Your task to perform on an android device: open app "Reddit" (install if not already installed) Image 0: 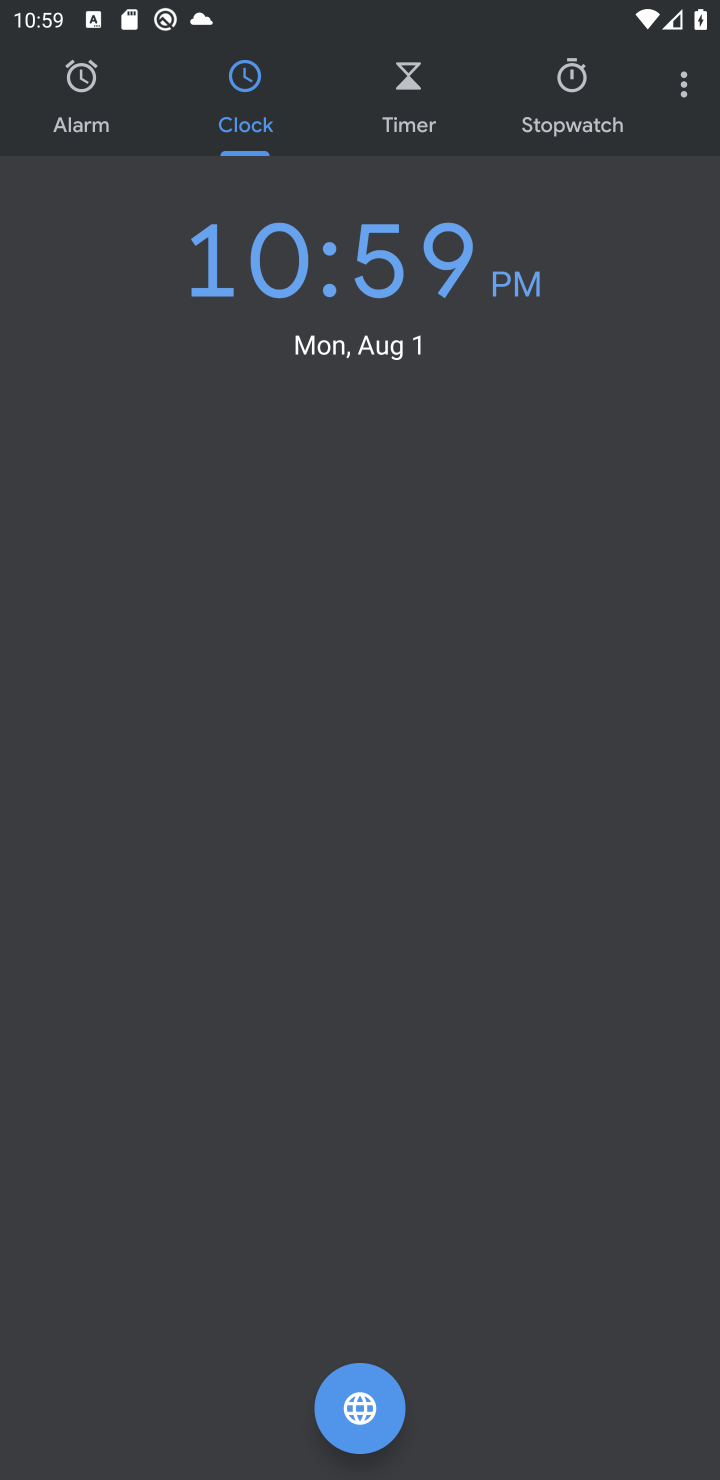
Step 0: press home button
Your task to perform on an android device: open app "Reddit" (install if not already installed) Image 1: 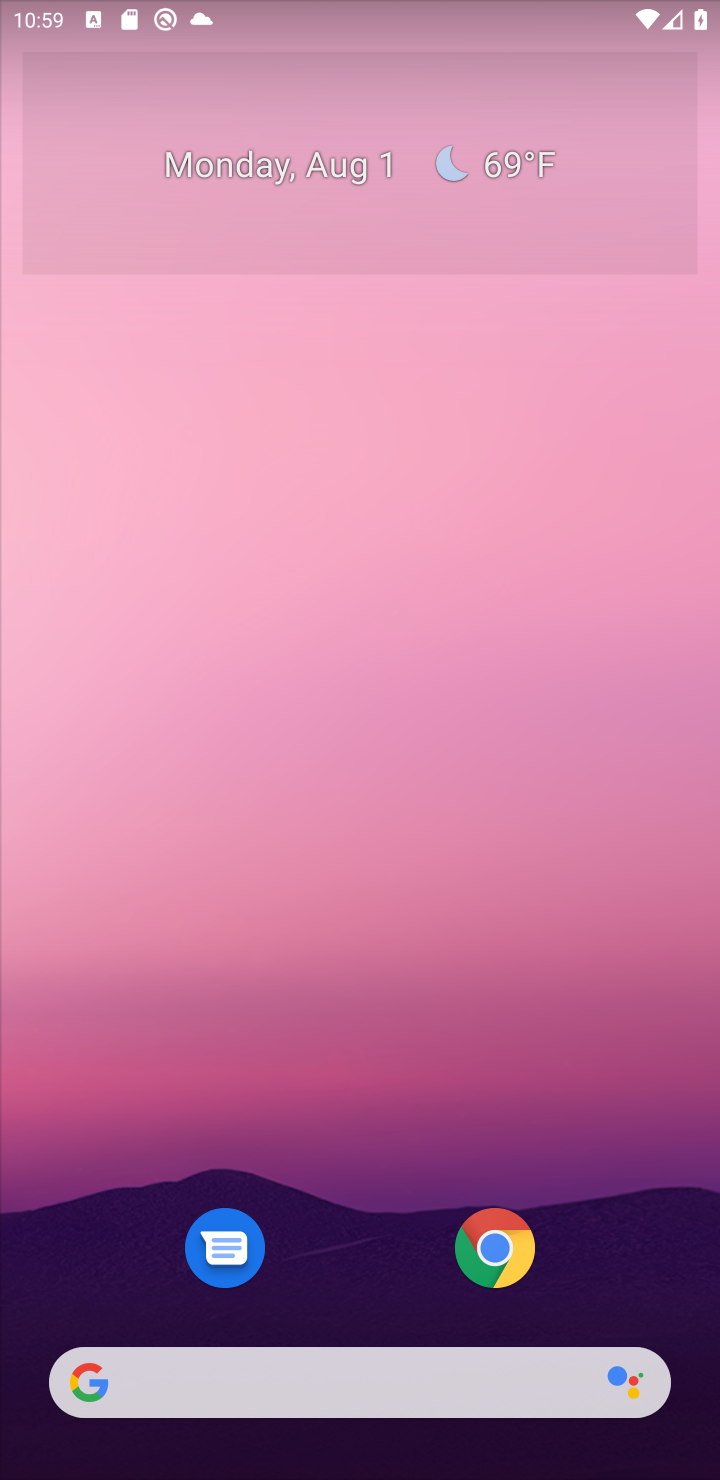
Step 1: drag from (346, 1274) to (372, 201)
Your task to perform on an android device: open app "Reddit" (install if not already installed) Image 2: 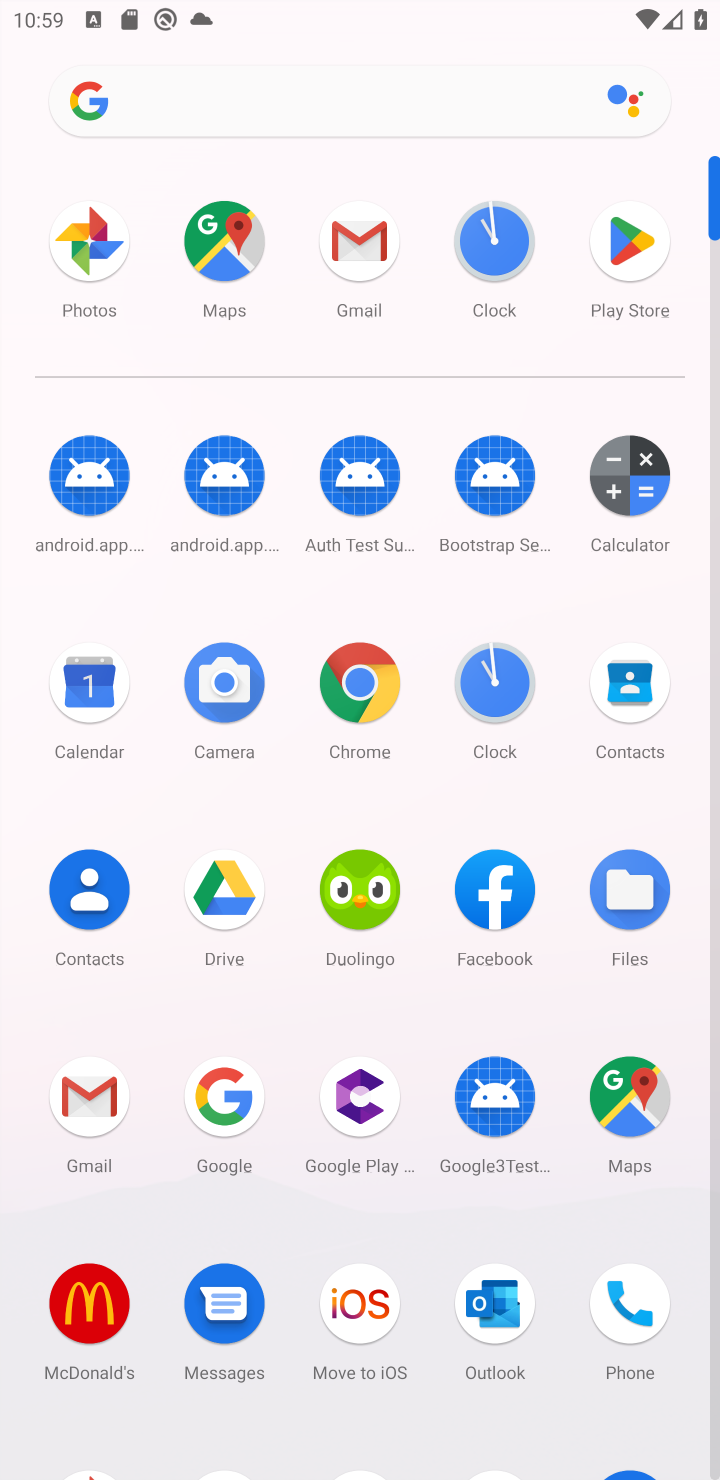
Step 2: drag from (290, 1198) to (316, 387)
Your task to perform on an android device: open app "Reddit" (install if not already installed) Image 3: 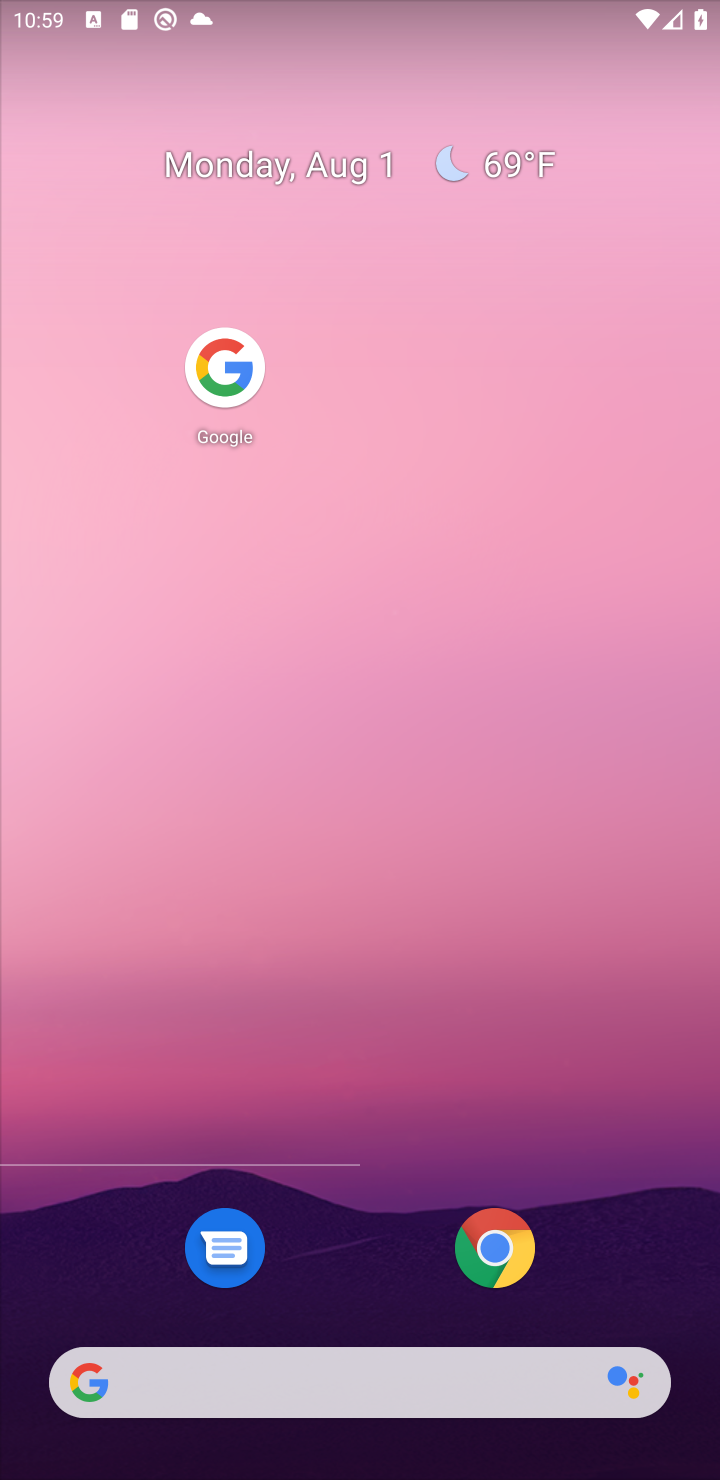
Step 3: drag from (441, 1099) to (538, 73)
Your task to perform on an android device: open app "Reddit" (install if not already installed) Image 4: 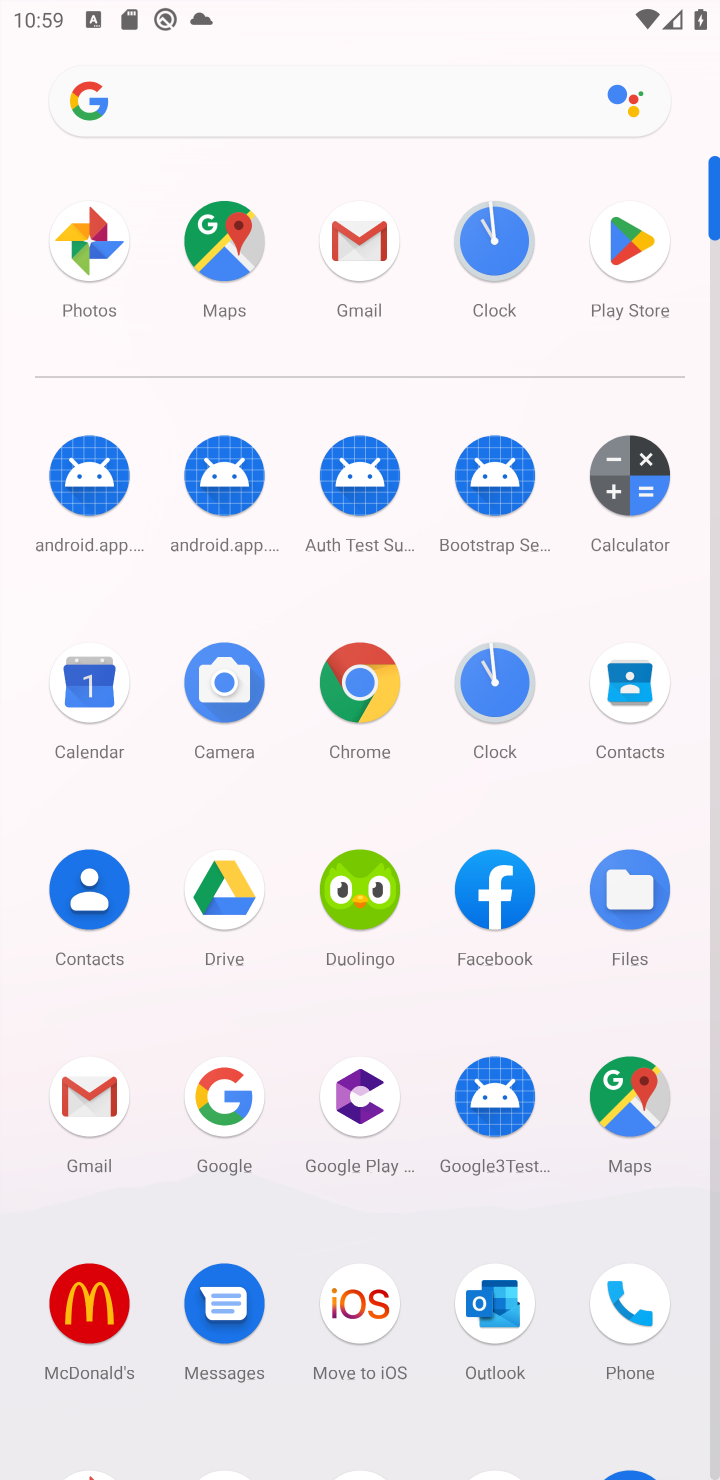
Step 4: drag from (293, 1219) to (313, 515)
Your task to perform on an android device: open app "Reddit" (install if not already installed) Image 5: 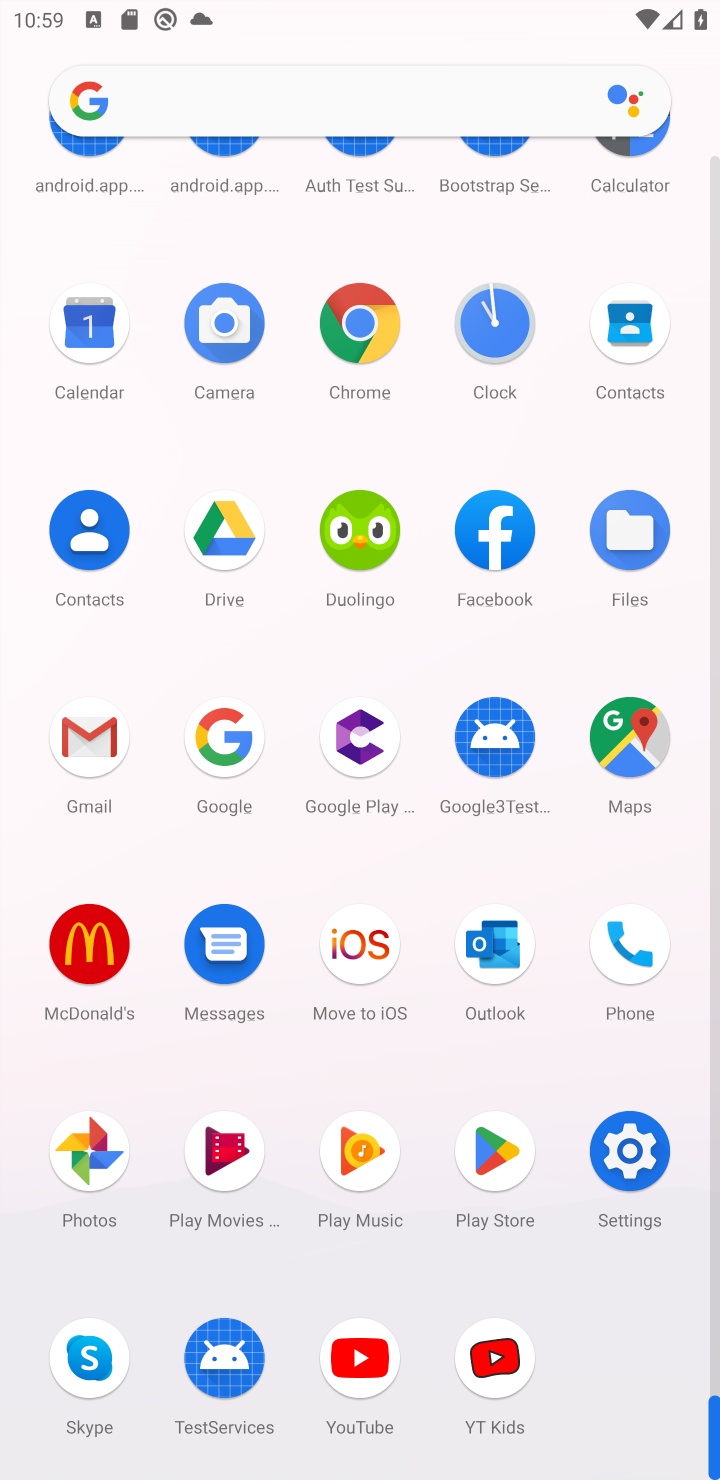
Step 5: click (510, 1141)
Your task to perform on an android device: open app "Reddit" (install if not already installed) Image 6: 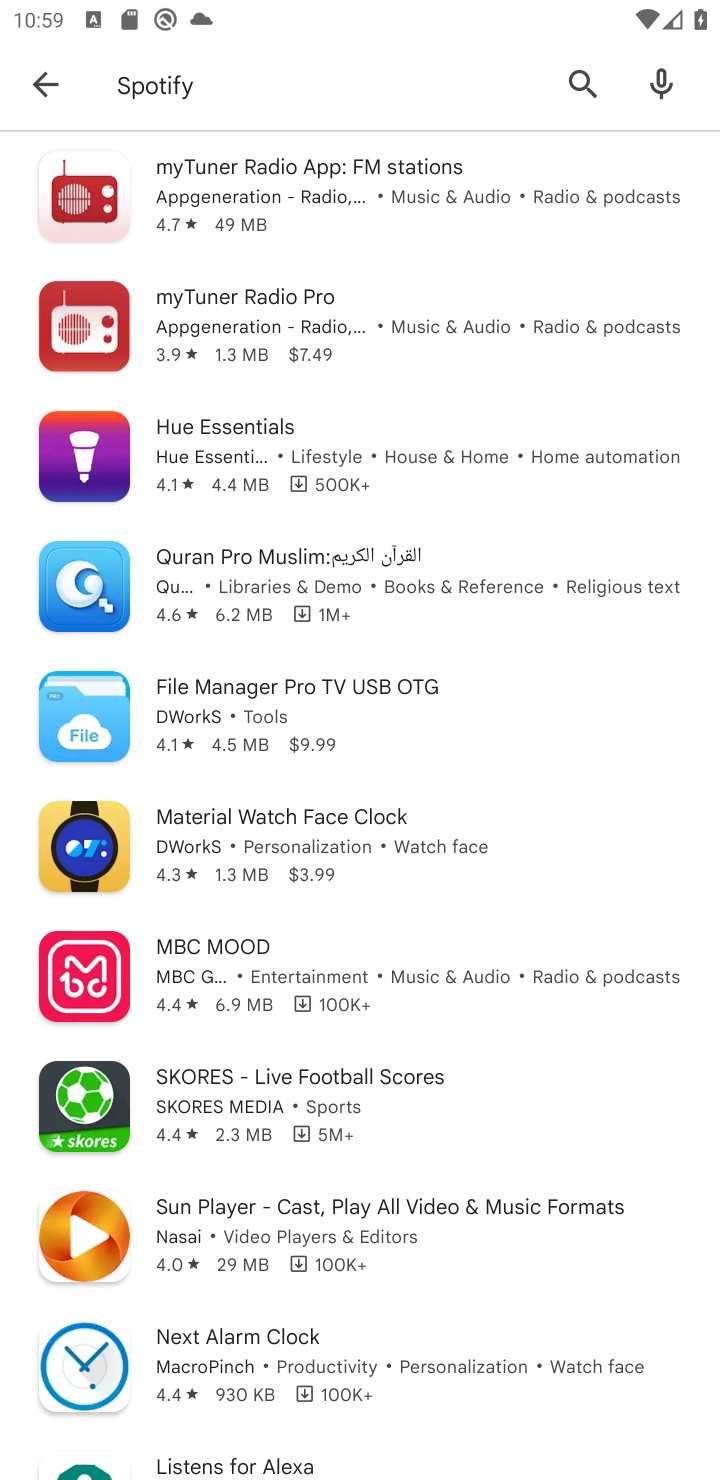
Step 6: click (306, 101)
Your task to perform on an android device: open app "Reddit" (install if not already installed) Image 7: 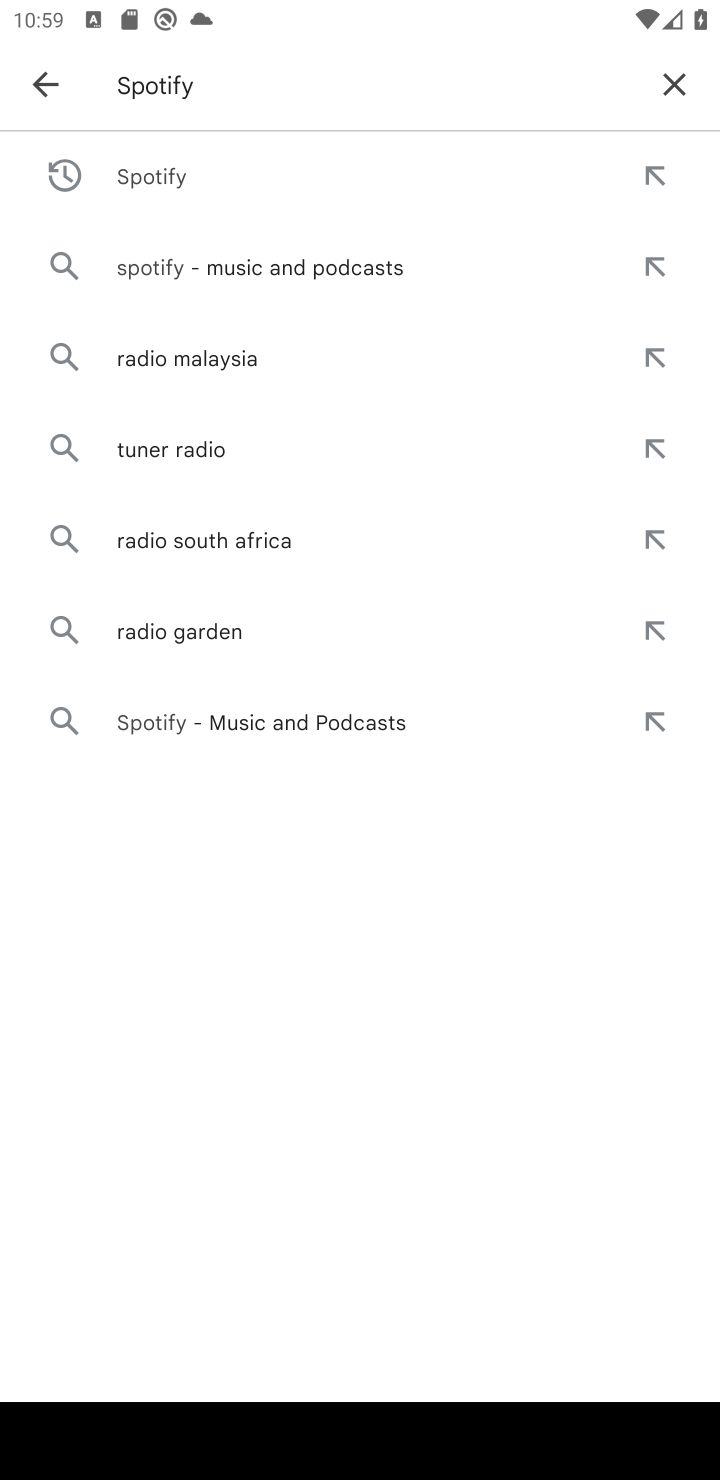
Step 7: click (660, 86)
Your task to perform on an android device: open app "Reddit" (install if not already installed) Image 8: 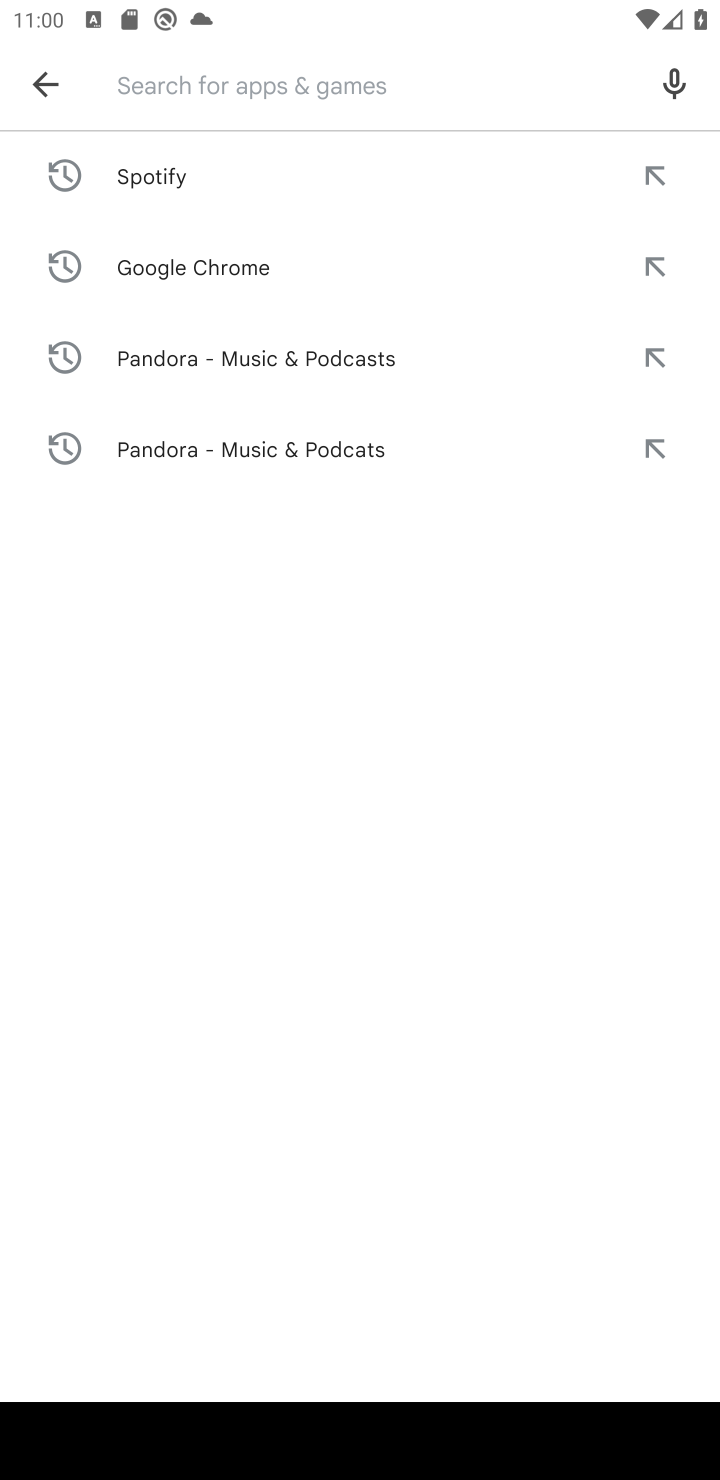
Step 8: type "Reddit"
Your task to perform on an android device: open app "Reddit" (install if not already installed) Image 9: 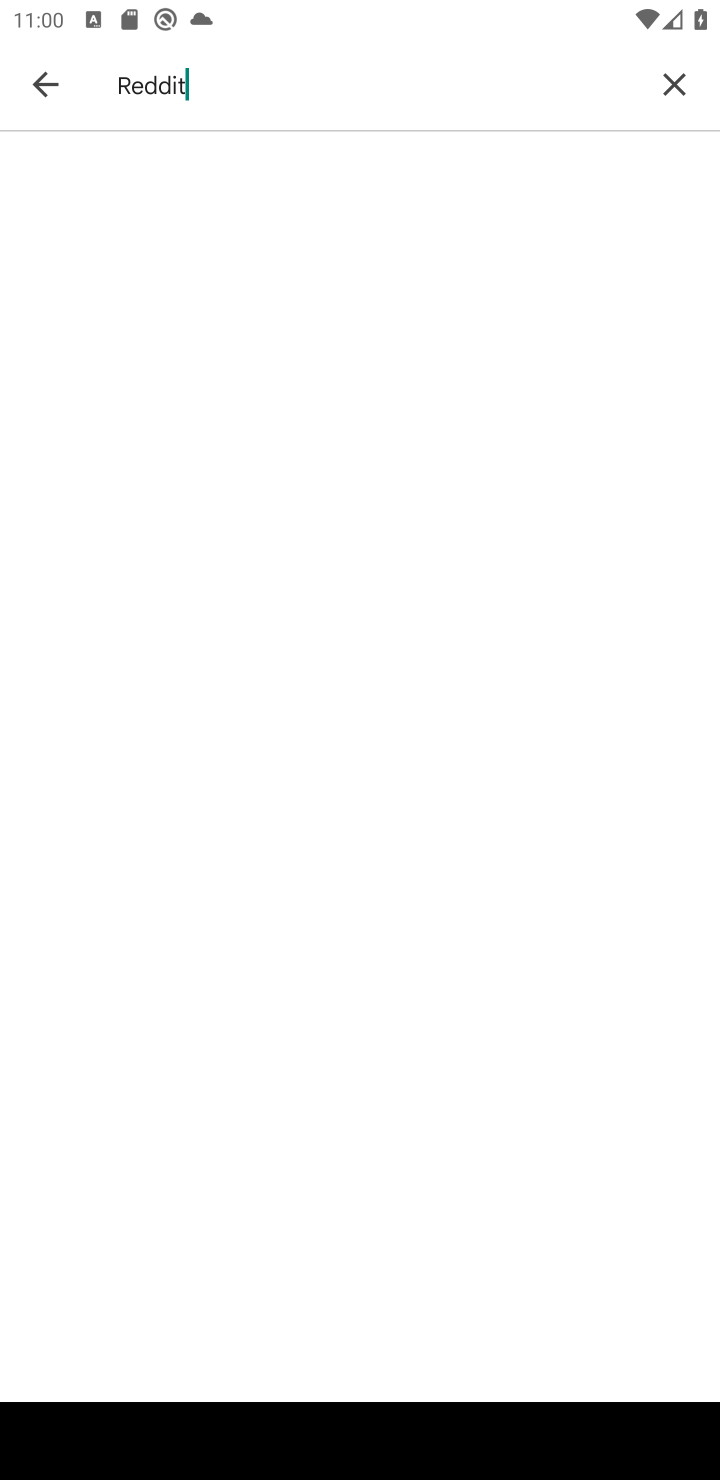
Step 9: press enter
Your task to perform on an android device: open app "Reddit" (install if not already installed) Image 10: 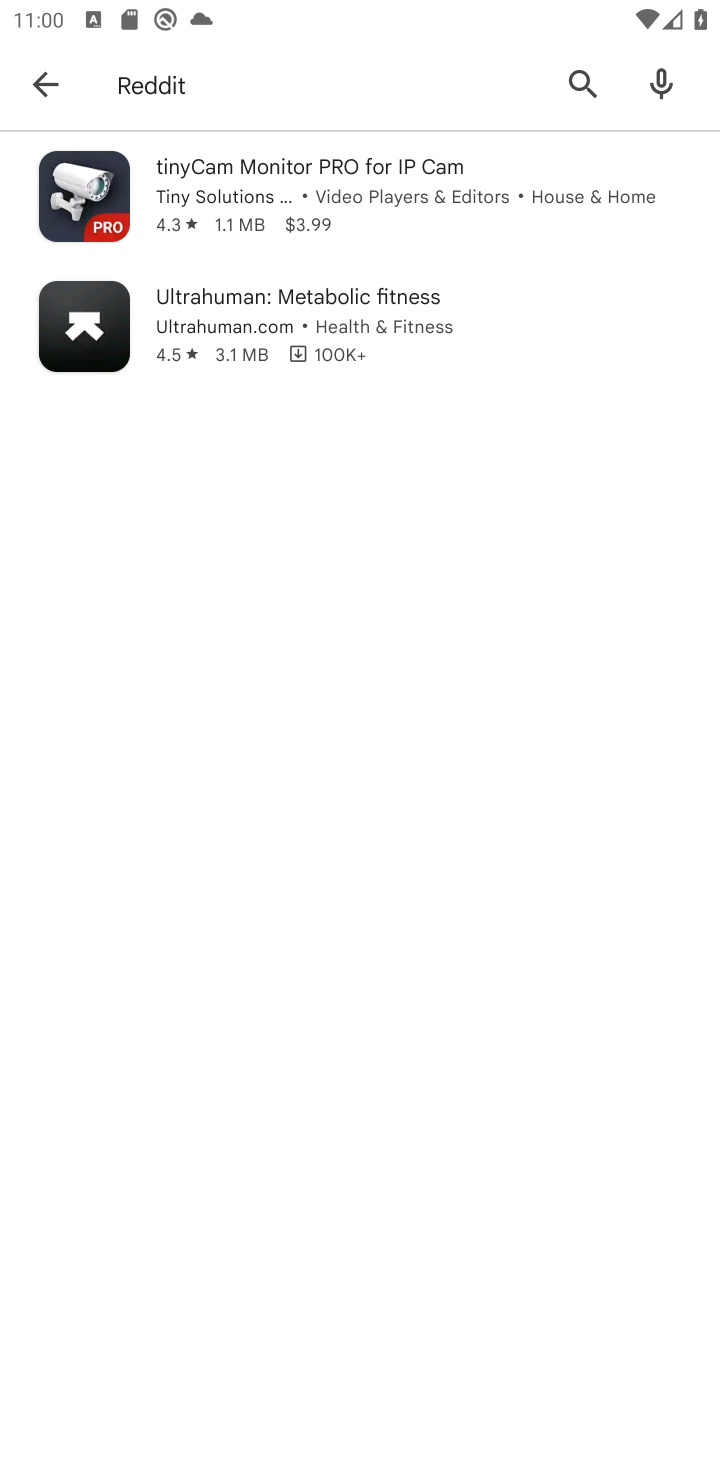
Step 10: task complete